Your task to perform on an android device: turn smart compose on in the gmail app Image 0: 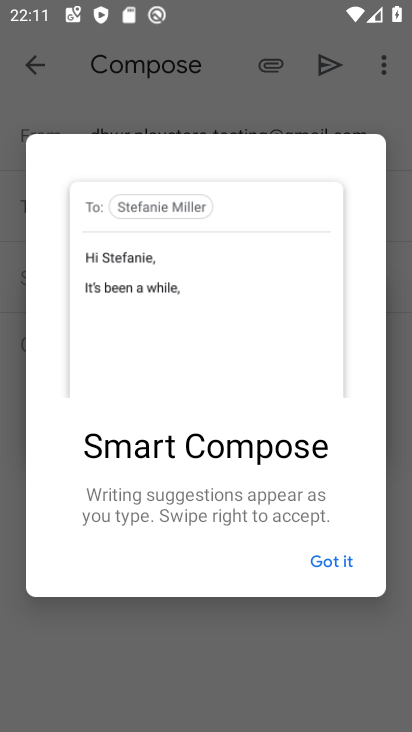
Step 0: press home button
Your task to perform on an android device: turn smart compose on in the gmail app Image 1: 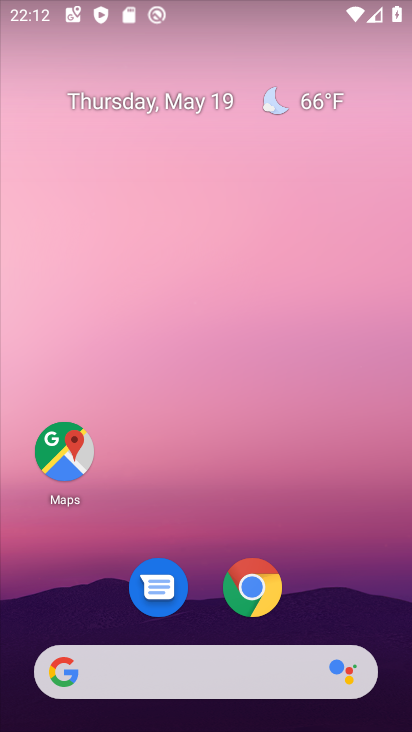
Step 1: drag from (264, 651) to (258, 292)
Your task to perform on an android device: turn smart compose on in the gmail app Image 2: 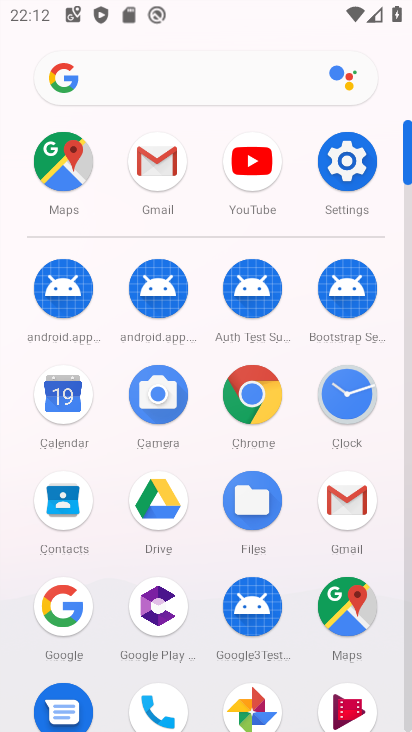
Step 2: click (161, 164)
Your task to perform on an android device: turn smart compose on in the gmail app Image 3: 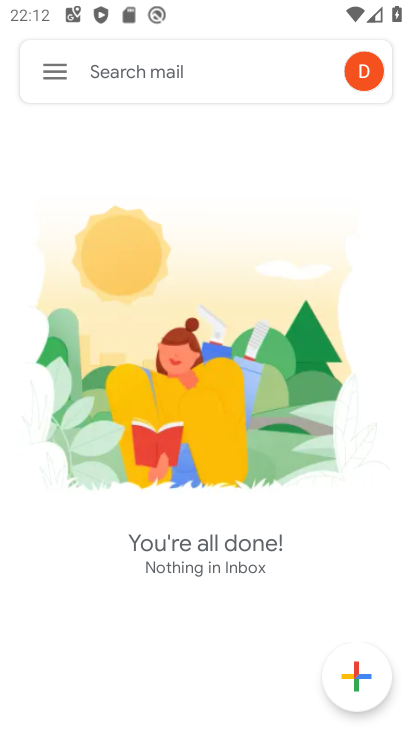
Step 3: click (54, 62)
Your task to perform on an android device: turn smart compose on in the gmail app Image 4: 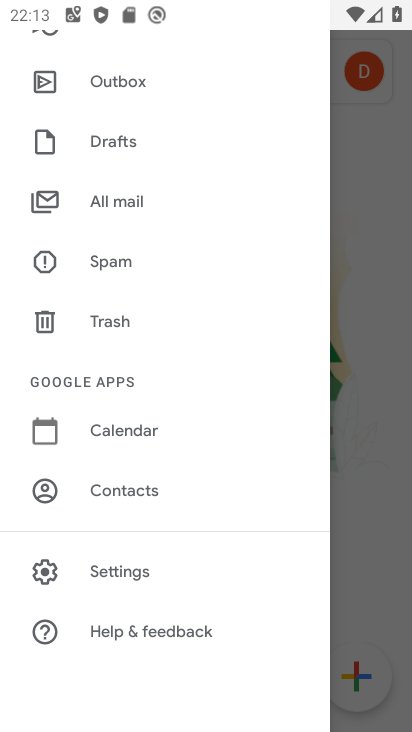
Step 4: click (97, 572)
Your task to perform on an android device: turn smart compose on in the gmail app Image 5: 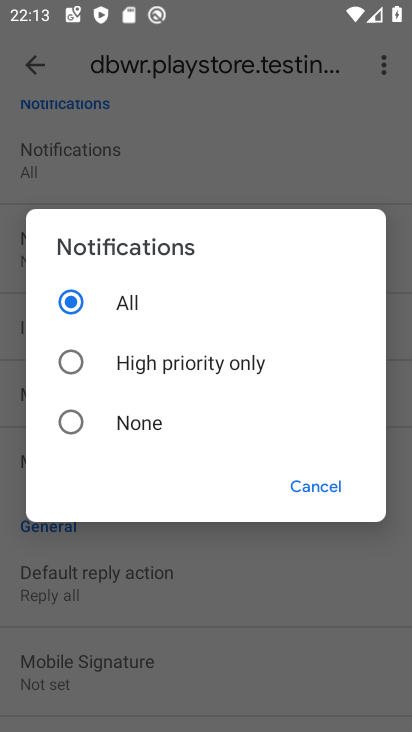
Step 5: click (317, 489)
Your task to perform on an android device: turn smart compose on in the gmail app Image 6: 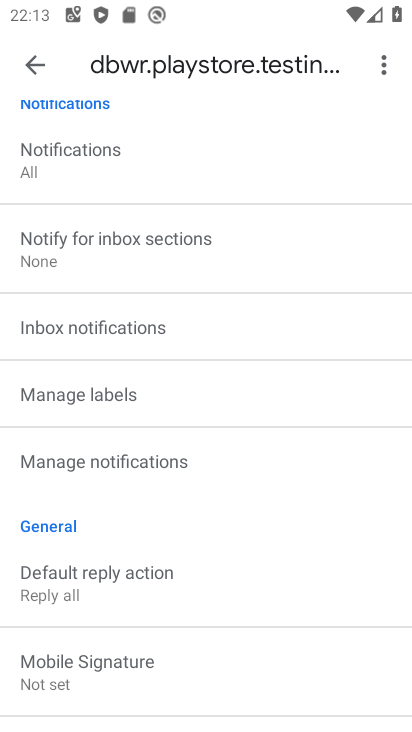
Step 6: drag from (214, 518) to (256, 210)
Your task to perform on an android device: turn smart compose on in the gmail app Image 7: 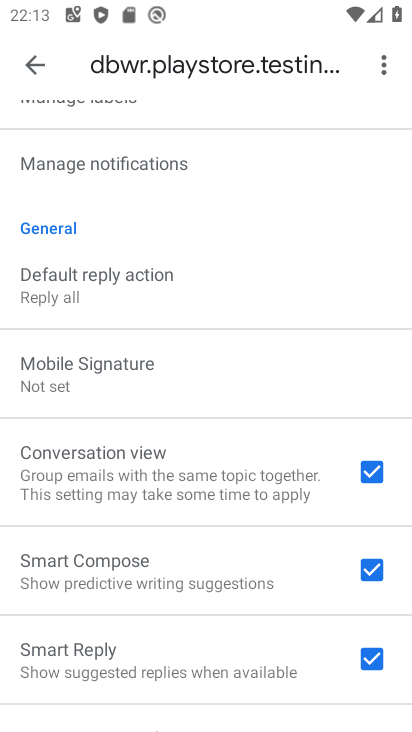
Step 7: click (359, 564)
Your task to perform on an android device: turn smart compose on in the gmail app Image 8: 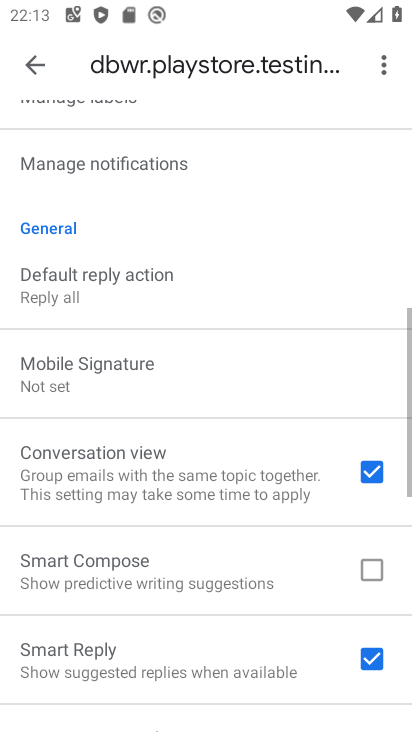
Step 8: click (359, 564)
Your task to perform on an android device: turn smart compose on in the gmail app Image 9: 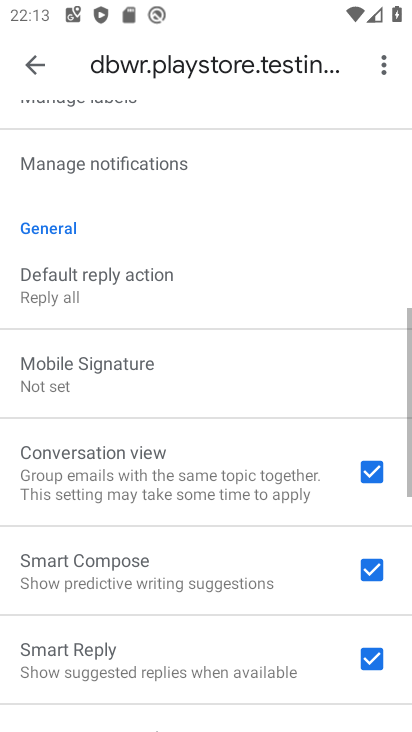
Step 9: task complete